Your task to perform on an android device: turn vacation reply on in the gmail app Image 0: 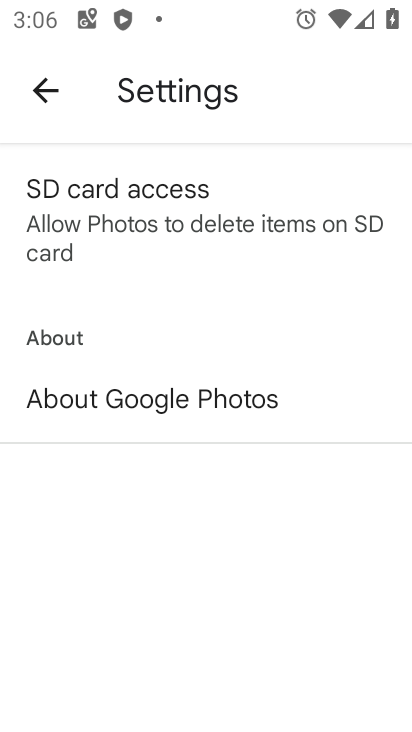
Step 0: press home button
Your task to perform on an android device: turn vacation reply on in the gmail app Image 1: 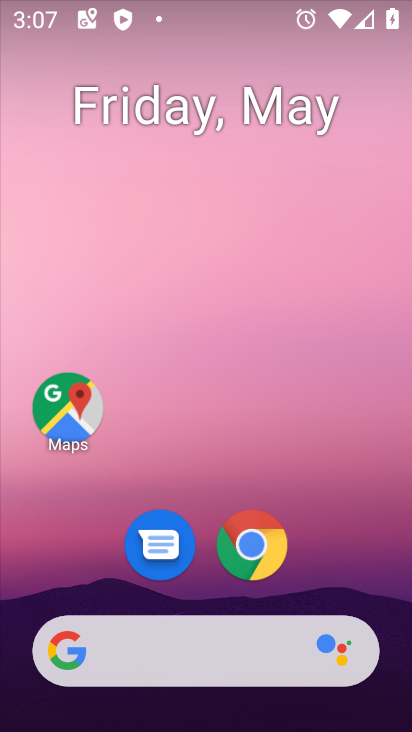
Step 1: drag from (344, 557) to (268, 114)
Your task to perform on an android device: turn vacation reply on in the gmail app Image 2: 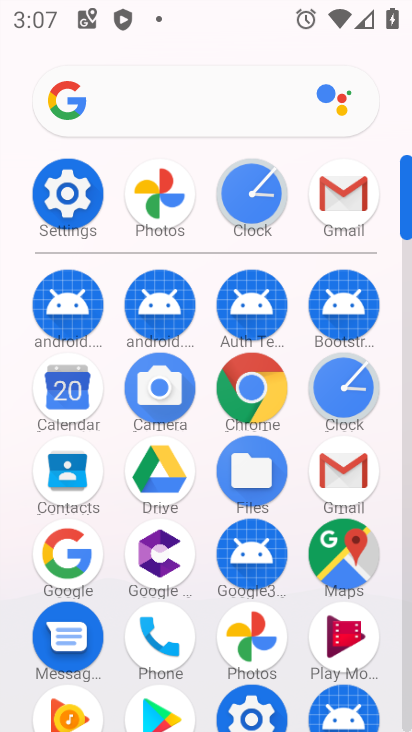
Step 2: click (347, 471)
Your task to perform on an android device: turn vacation reply on in the gmail app Image 3: 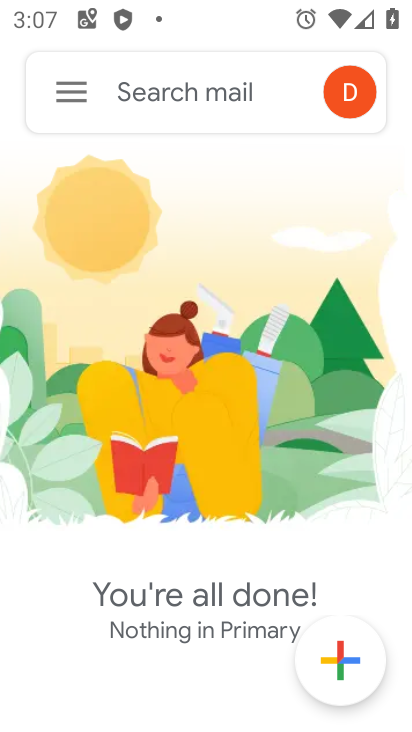
Step 3: click (72, 97)
Your task to perform on an android device: turn vacation reply on in the gmail app Image 4: 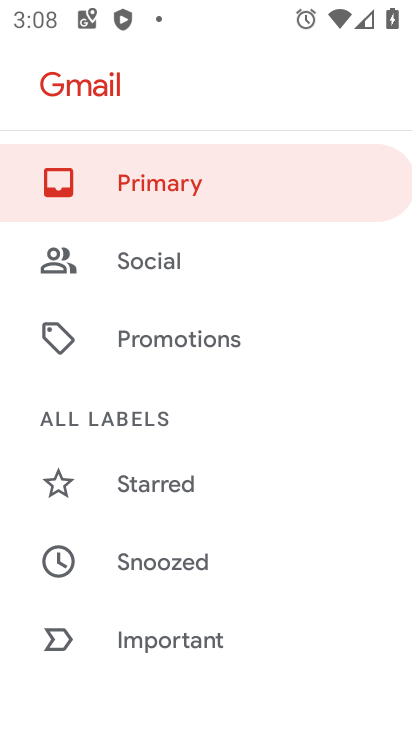
Step 4: drag from (224, 577) to (229, 192)
Your task to perform on an android device: turn vacation reply on in the gmail app Image 5: 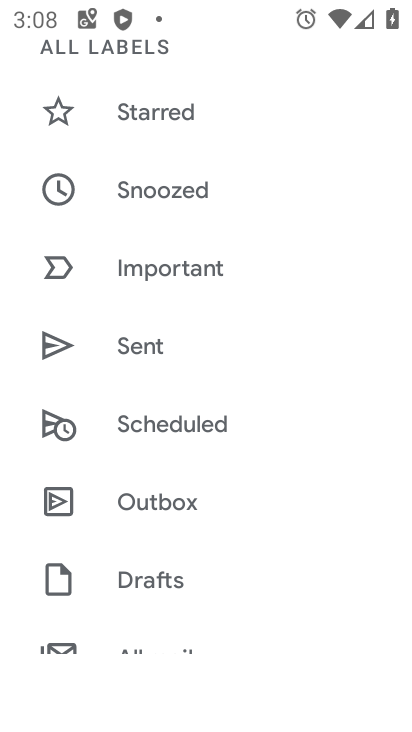
Step 5: drag from (245, 590) to (247, 217)
Your task to perform on an android device: turn vacation reply on in the gmail app Image 6: 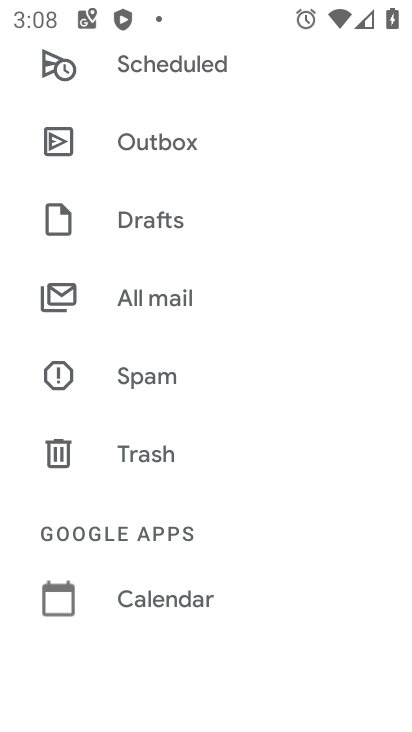
Step 6: drag from (234, 583) to (238, 286)
Your task to perform on an android device: turn vacation reply on in the gmail app Image 7: 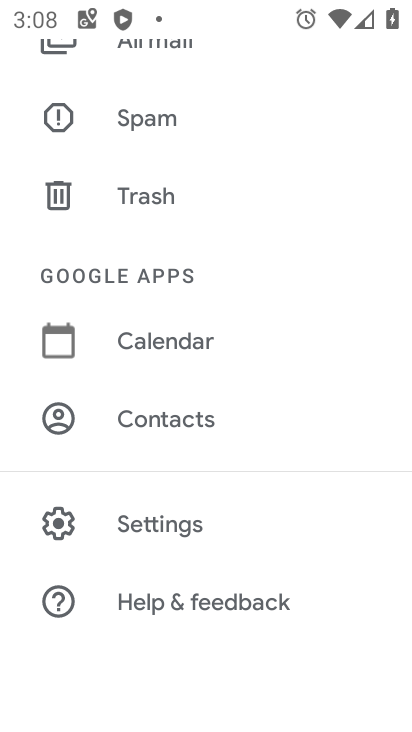
Step 7: click (157, 522)
Your task to perform on an android device: turn vacation reply on in the gmail app Image 8: 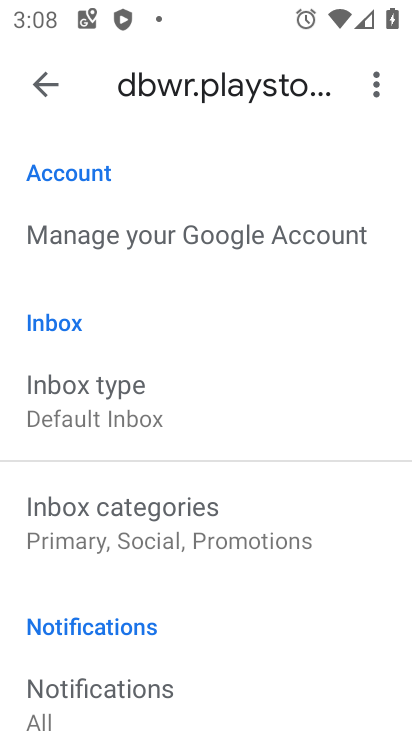
Step 8: drag from (234, 614) to (248, 325)
Your task to perform on an android device: turn vacation reply on in the gmail app Image 9: 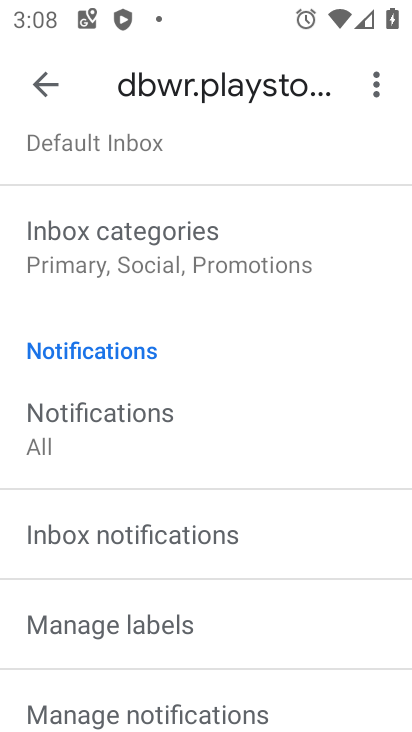
Step 9: drag from (252, 650) to (263, 271)
Your task to perform on an android device: turn vacation reply on in the gmail app Image 10: 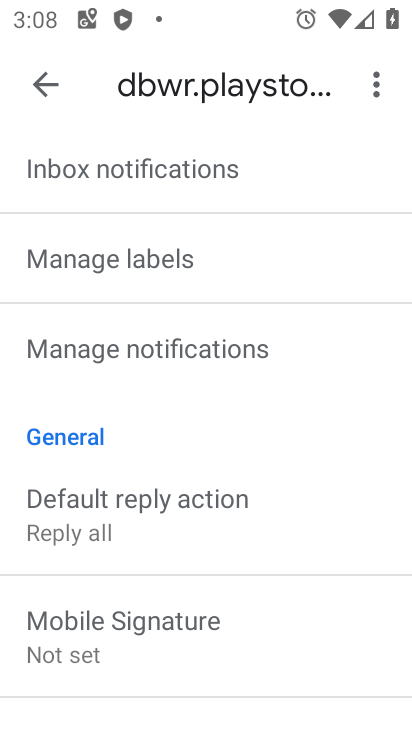
Step 10: drag from (288, 591) to (256, 272)
Your task to perform on an android device: turn vacation reply on in the gmail app Image 11: 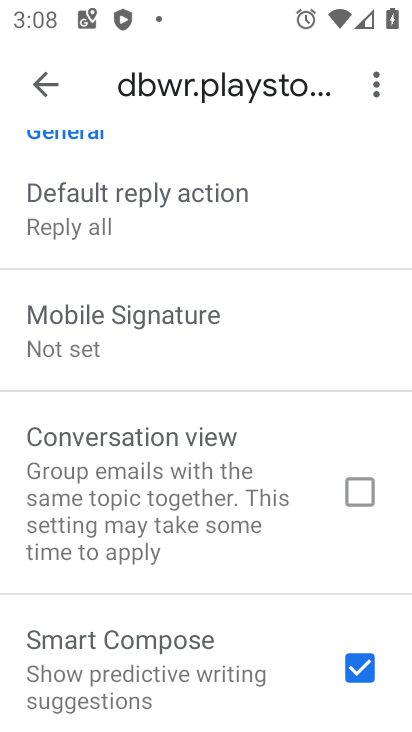
Step 11: drag from (255, 588) to (270, 337)
Your task to perform on an android device: turn vacation reply on in the gmail app Image 12: 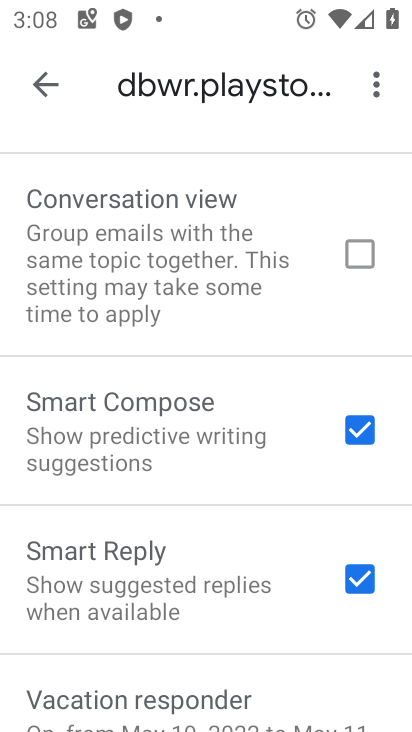
Step 12: drag from (260, 643) to (258, 319)
Your task to perform on an android device: turn vacation reply on in the gmail app Image 13: 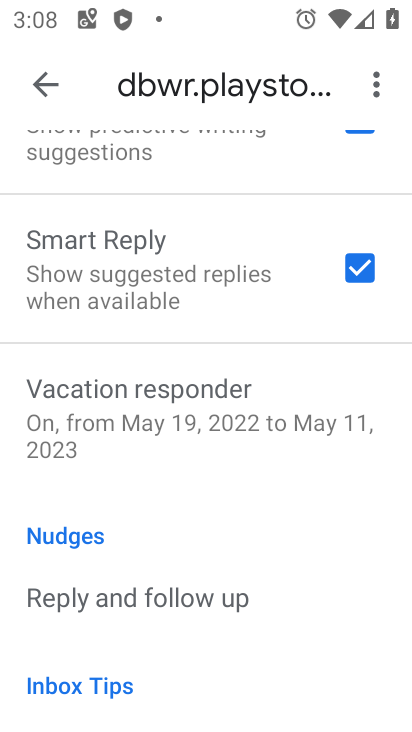
Step 13: click (229, 418)
Your task to perform on an android device: turn vacation reply on in the gmail app Image 14: 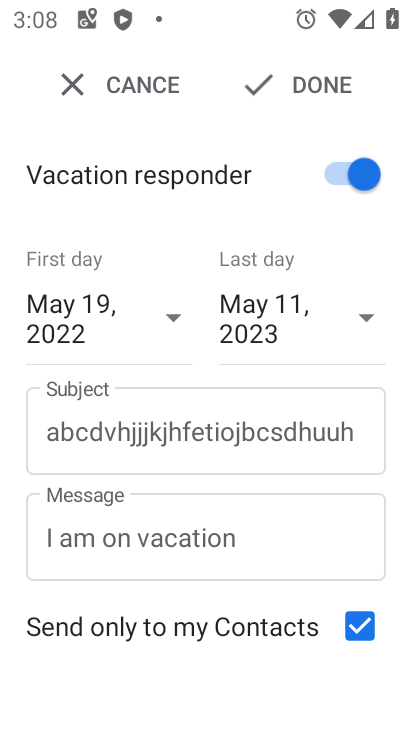
Step 14: click (306, 88)
Your task to perform on an android device: turn vacation reply on in the gmail app Image 15: 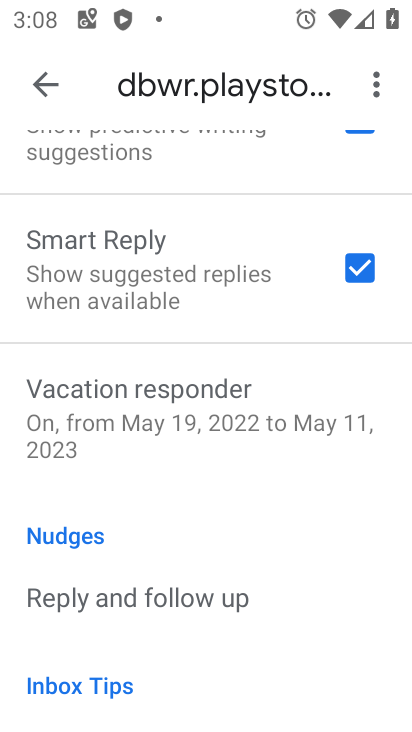
Step 15: task complete